Your task to perform on an android device: turn on javascript in the chrome app Image 0: 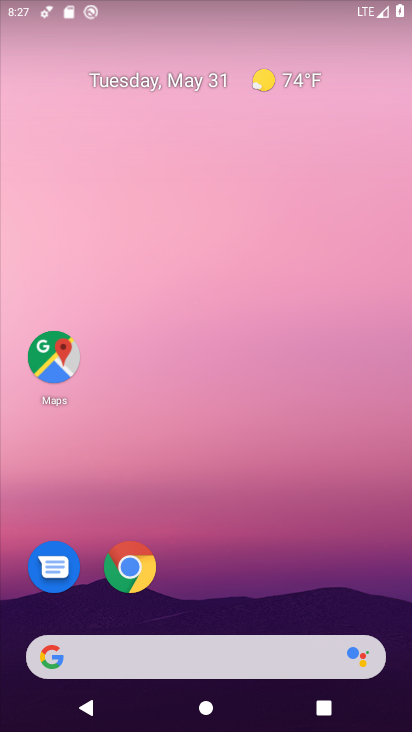
Step 0: drag from (288, 701) to (162, 23)
Your task to perform on an android device: turn on javascript in the chrome app Image 1: 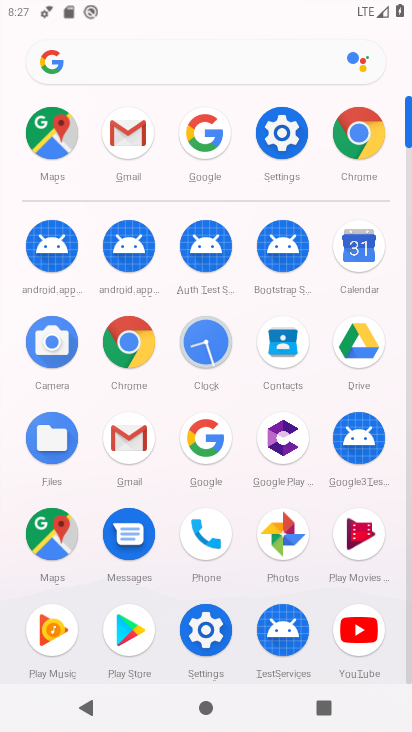
Step 1: press back button
Your task to perform on an android device: turn on javascript in the chrome app Image 2: 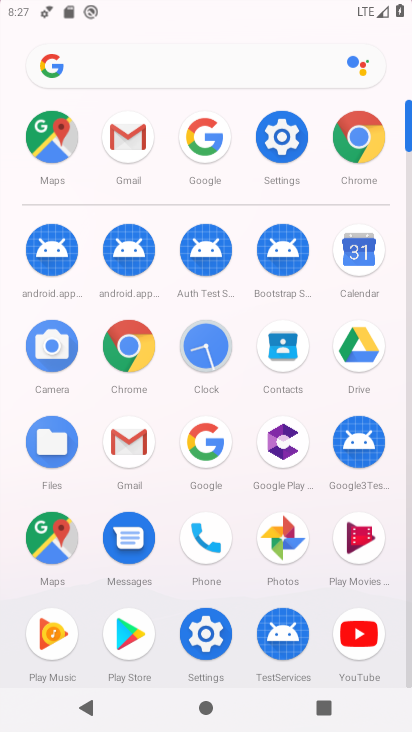
Step 2: press back button
Your task to perform on an android device: turn on javascript in the chrome app Image 3: 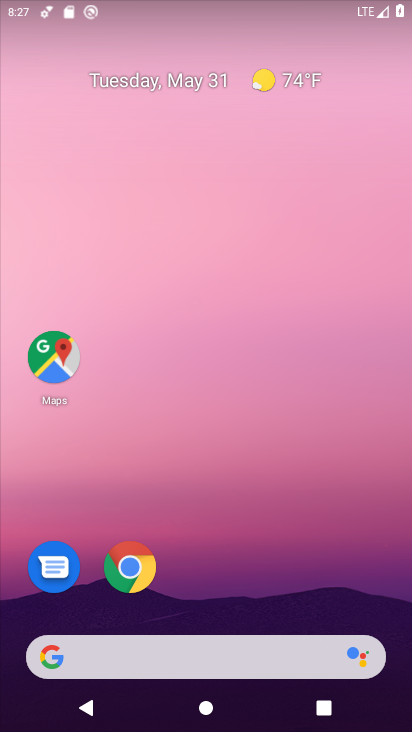
Step 3: drag from (266, 675) to (184, 126)
Your task to perform on an android device: turn on javascript in the chrome app Image 4: 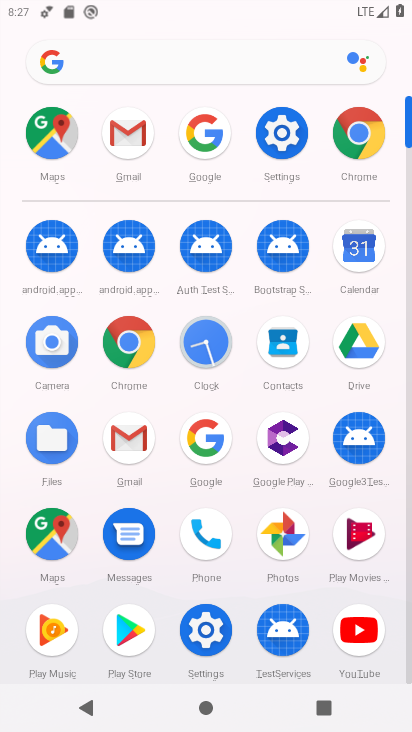
Step 4: click (359, 131)
Your task to perform on an android device: turn on javascript in the chrome app Image 5: 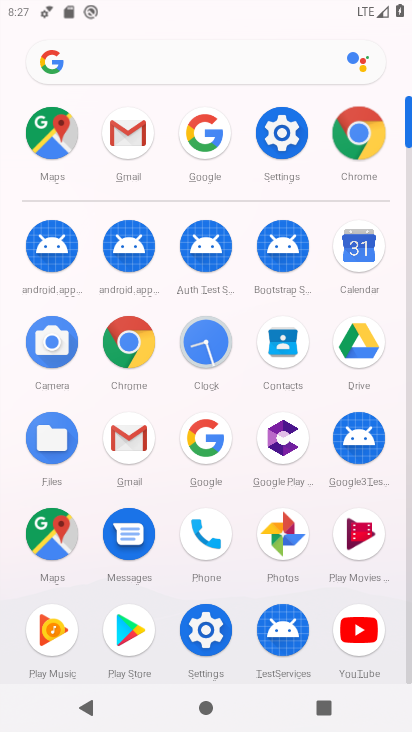
Step 5: click (359, 132)
Your task to perform on an android device: turn on javascript in the chrome app Image 6: 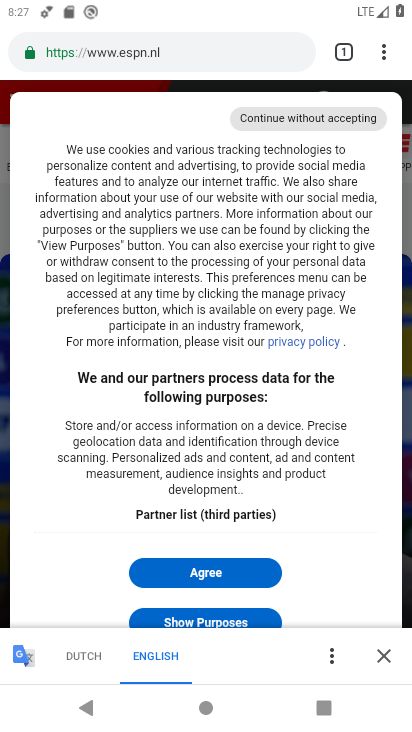
Step 6: drag from (382, 52) to (189, 605)
Your task to perform on an android device: turn on javascript in the chrome app Image 7: 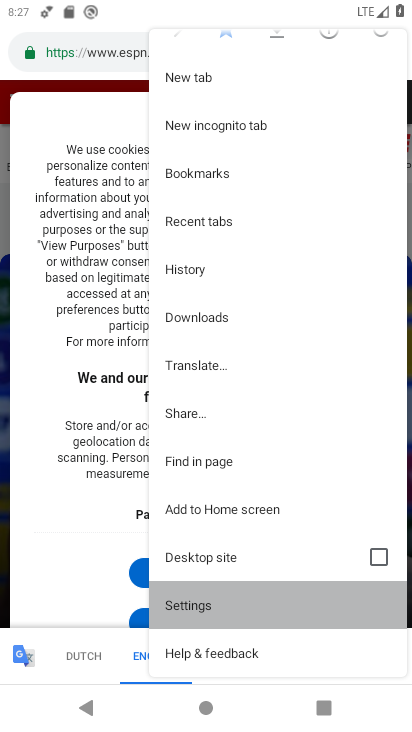
Step 7: click (190, 604)
Your task to perform on an android device: turn on javascript in the chrome app Image 8: 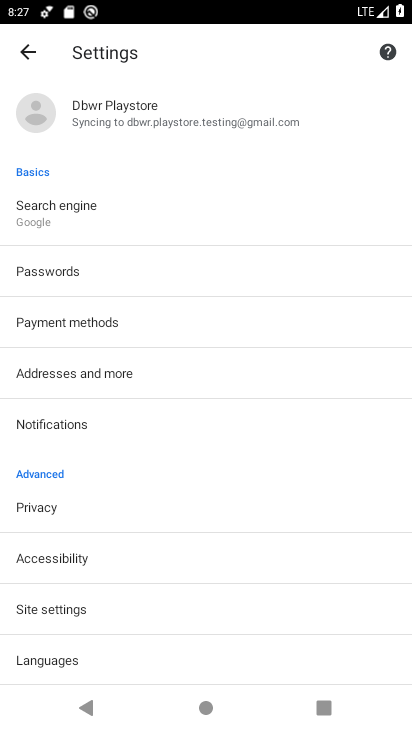
Step 8: click (41, 606)
Your task to perform on an android device: turn on javascript in the chrome app Image 9: 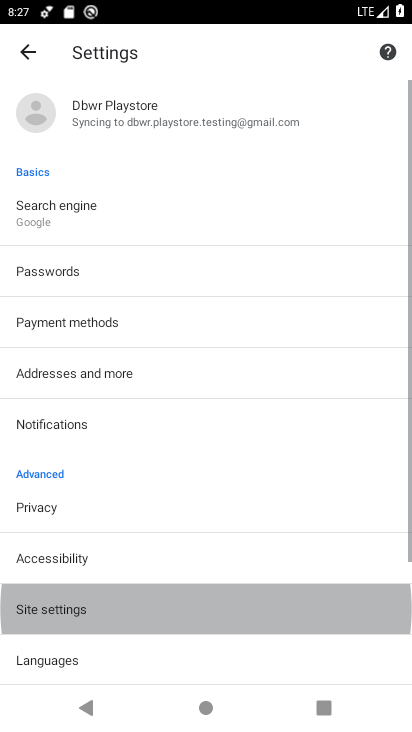
Step 9: click (41, 605)
Your task to perform on an android device: turn on javascript in the chrome app Image 10: 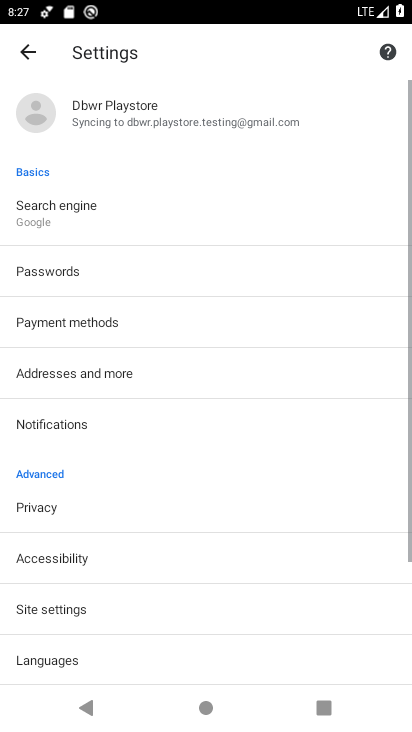
Step 10: click (41, 605)
Your task to perform on an android device: turn on javascript in the chrome app Image 11: 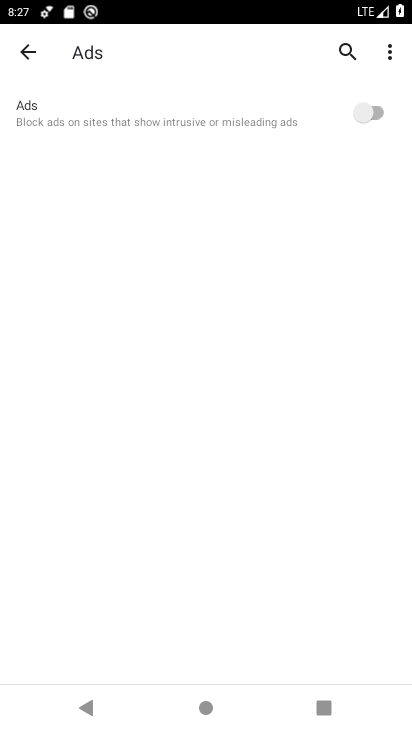
Step 11: click (22, 58)
Your task to perform on an android device: turn on javascript in the chrome app Image 12: 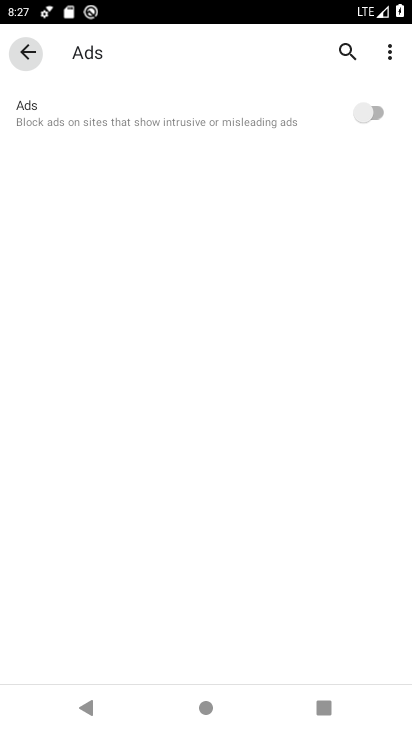
Step 12: click (24, 54)
Your task to perform on an android device: turn on javascript in the chrome app Image 13: 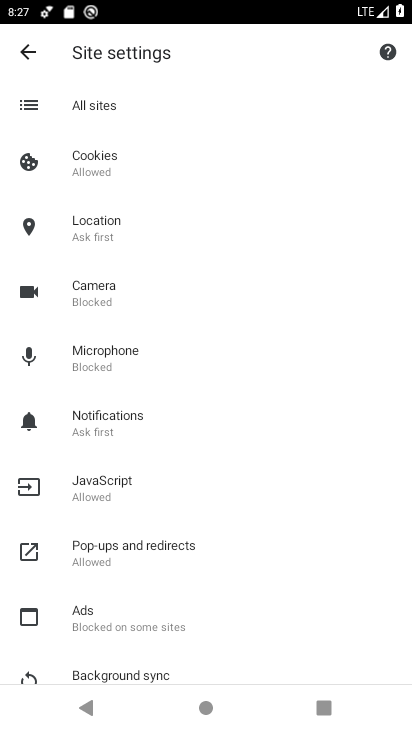
Step 13: click (102, 472)
Your task to perform on an android device: turn on javascript in the chrome app Image 14: 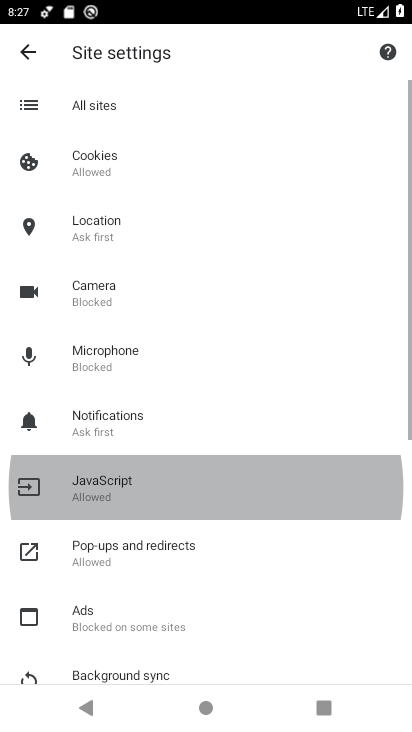
Step 14: click (103, 474)
Your task to perform on an android device: turn on javascript in the chrome app Image 15: 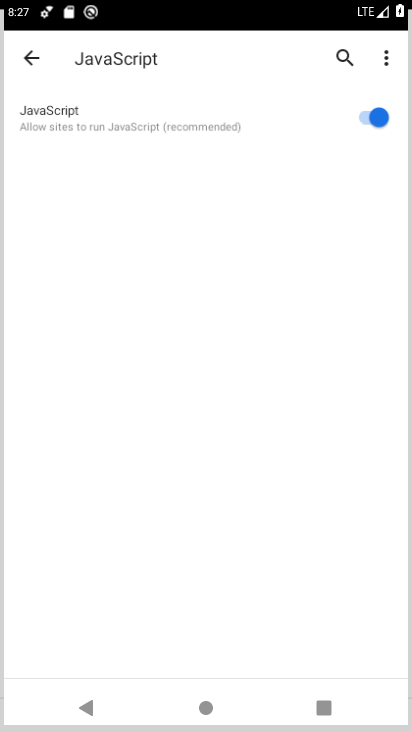
Step 15: click (106, 479)
Your task to perform on an android device: turn on javascript in the chrome app Image 16: 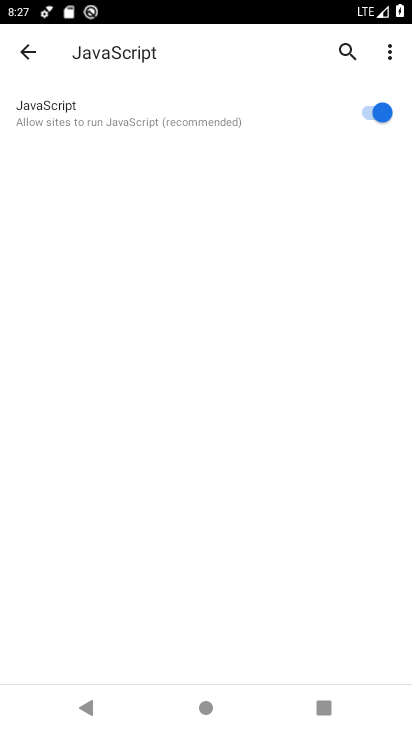
Step 16: task complete